Your task to perform on an android device: Go to eBay Image 0: 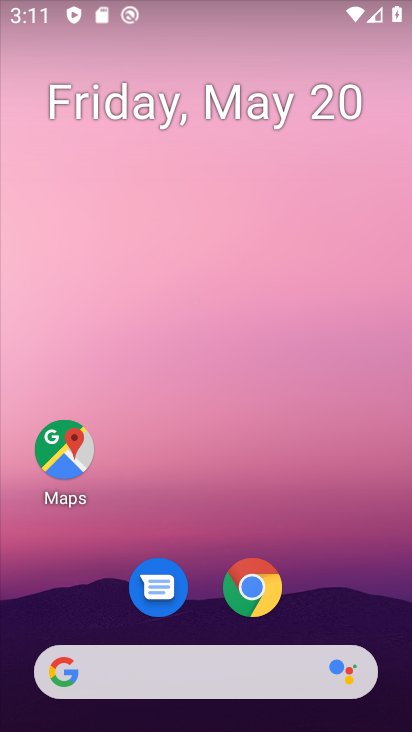
Step 0: click (261, 587)
Your task to perform on an android device: Go to eBay Image 1: 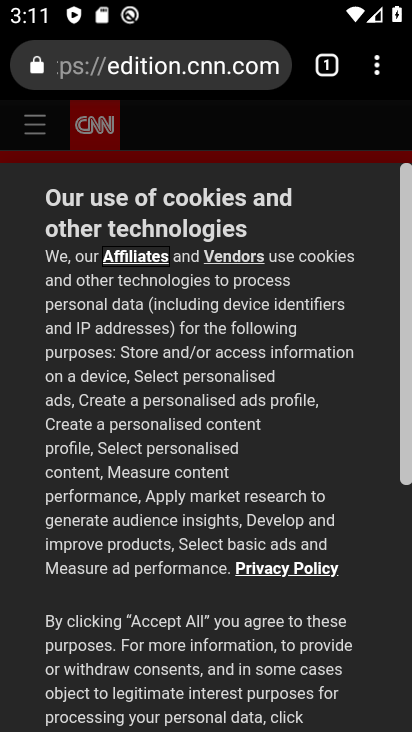
Step 1: click (197, 61)
Your task to perform on an android device: Go to eBay Image 2: 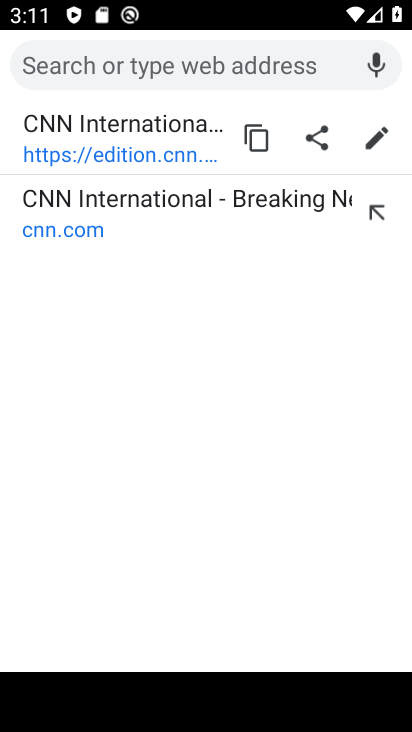
Step 2: type "eBay"
Your task to perform on an android device: Go to eBay Image 3: 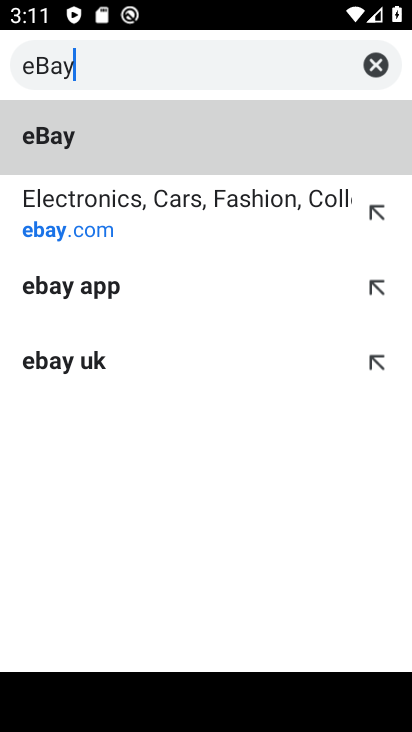
Step 3: type ""
Your task to perform on an android device: Go to eBay Image 4: 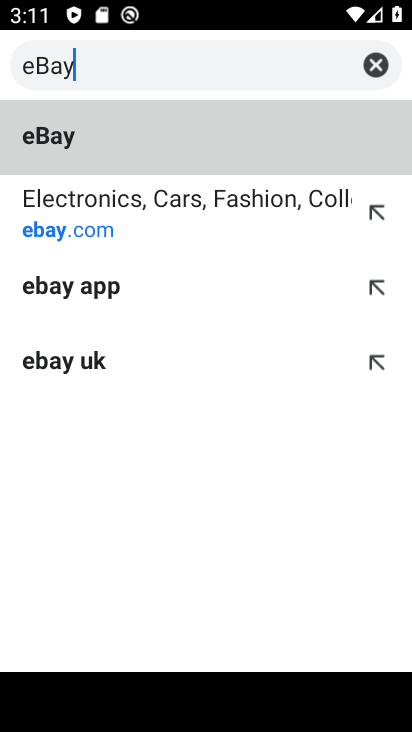
Step 4: click (129, 122)
Your task to perform on an android device: Go to eBay Image 5: 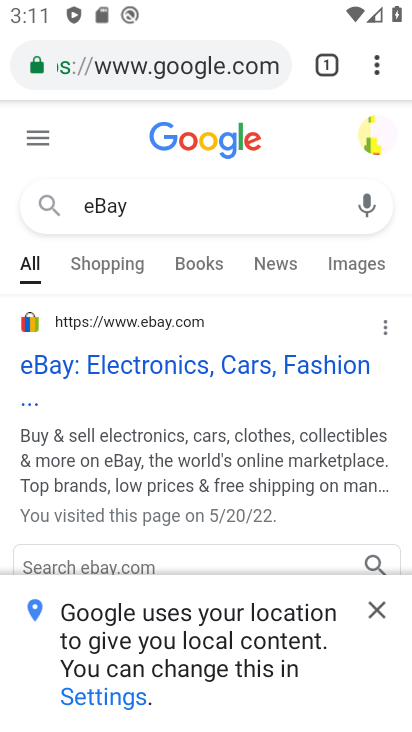
Step 5: click (55, 374)
Your task to perform on an android device: Go to eBay Image 6: 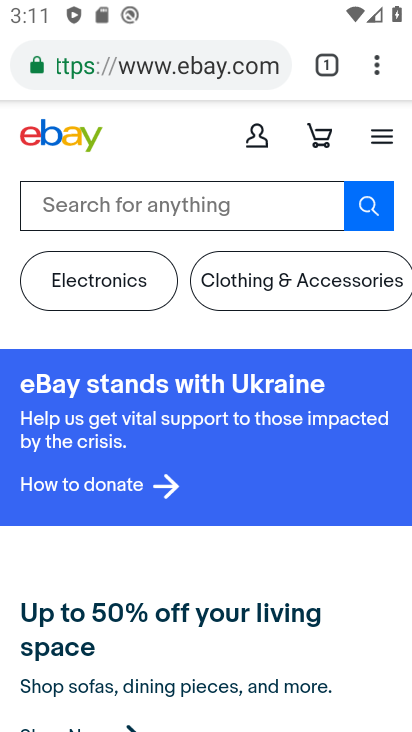
Step 6: task complete